Your task to perform on an android device: Go to Maps Image 0: 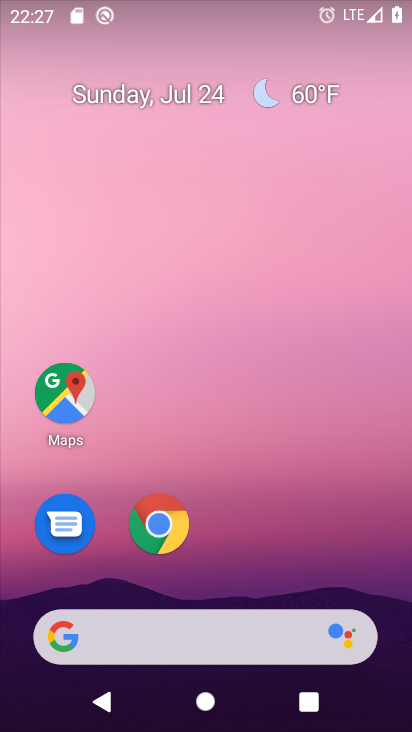
Step 0: click (66, 393)
Your task to perform on an android device: Go to Maps Image 1: 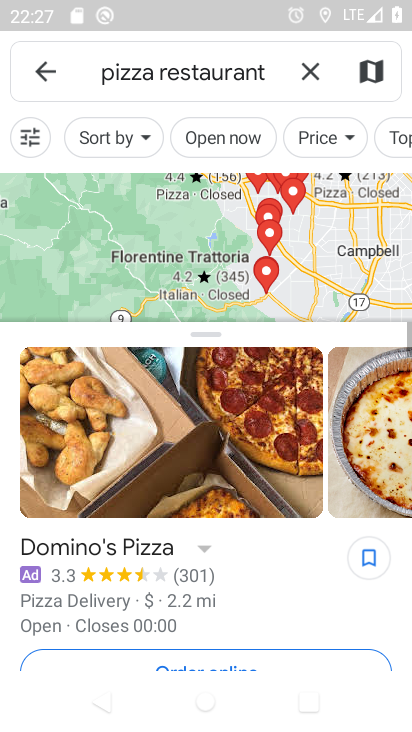
Step 1: click (310, 68)
Your task to perform on an android device: Go to Maps Image 2: 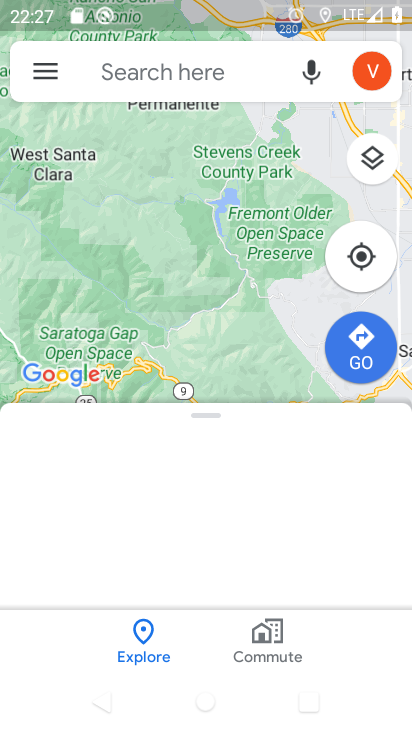
Step 2: task complete